Your task to perform on an android device: open a new tab in the chrome app Image 0: 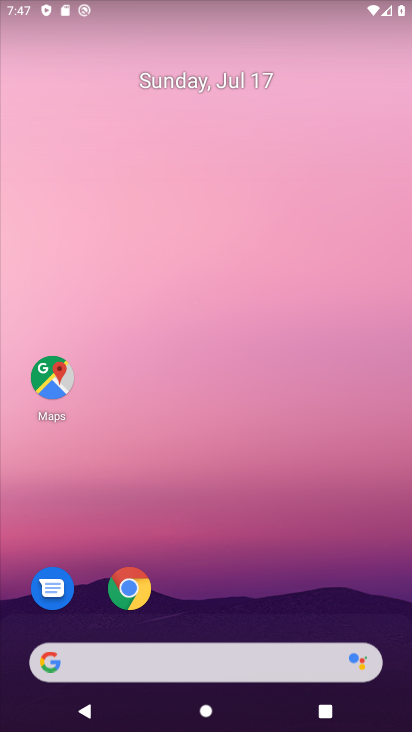
Step 0: click (134, 591)
Your task to perform on an android device: open a new tab in the chrome app Image 1: 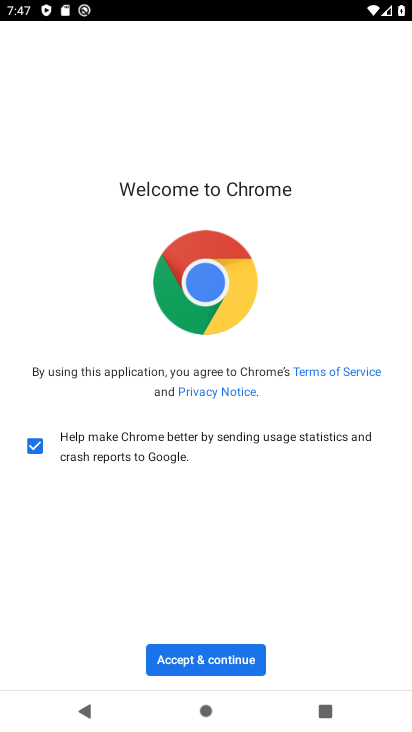
Step 1: click (185, 665)
Your task to perform on an android device: open a new tab in the chrome app Image 2: 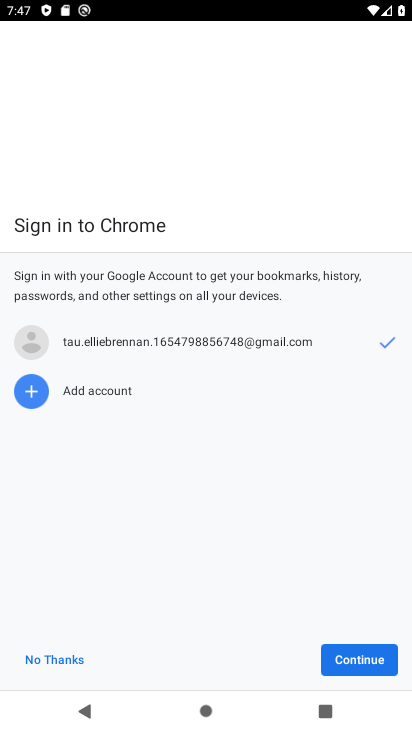
Step 2: click (366, 669)
Your task to perform on an android device: open a new tab in the chrome app Image 3: 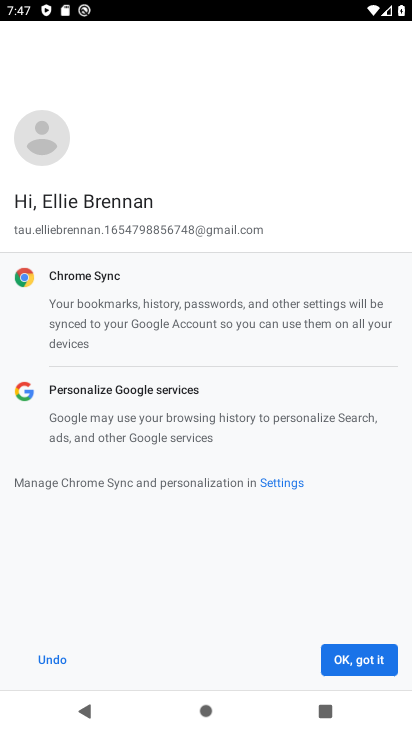
Step 3: click (366, 669)
Your task to perform on an android device: open a new tab in the chrome app Image 4: 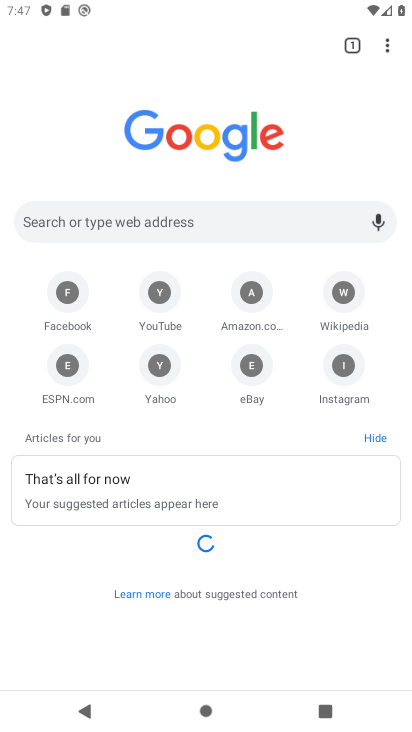
Step 4: click (386, 43)
Your task to perform on an android device: open a new tab in the chrome app Image 5: 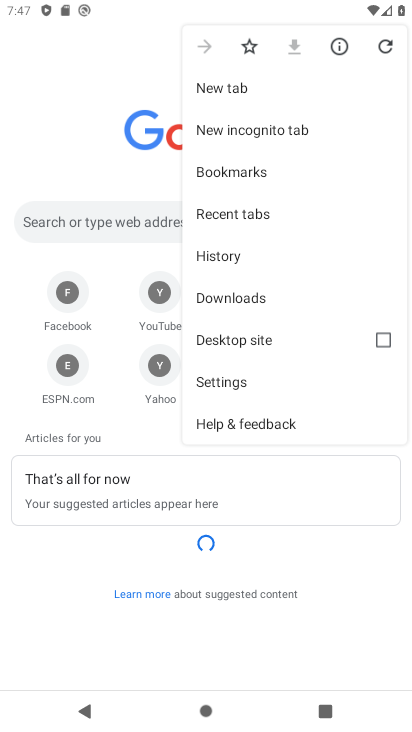
Step 5: click (242, 89)
Your task to perform on an android device: open a new tab in the chrome app Image 6: 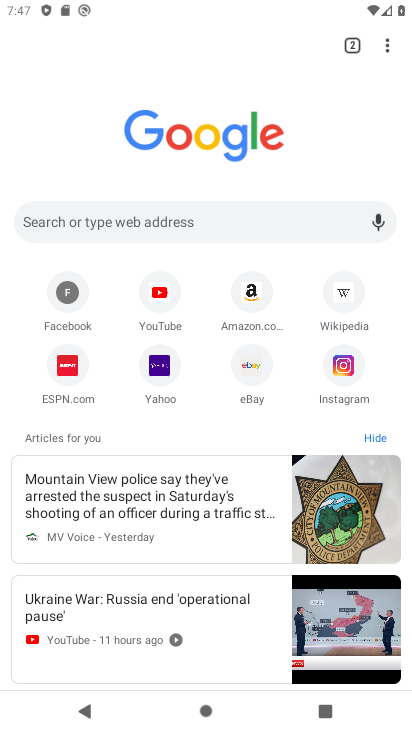
Step 6: task complete